Your task to perform on an android device: What's the weather? Image 0: 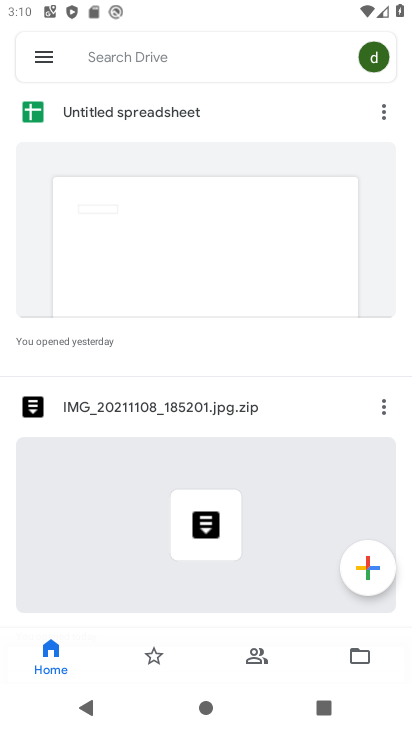
Step 0: press home button
Your task to perform on an android device: What's the weather? Image 1: 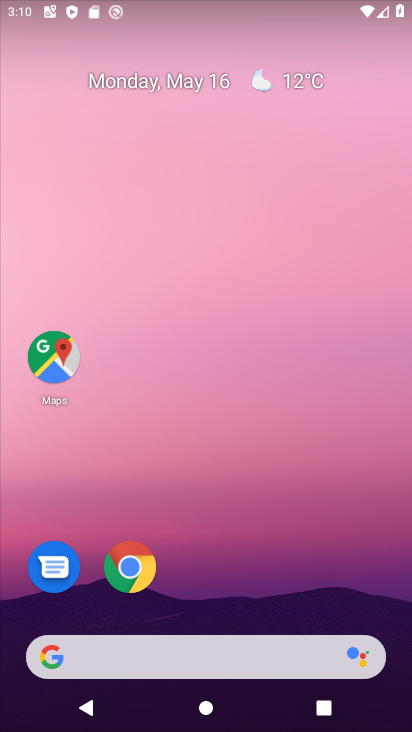
Step 1: click (302, 88)
Your task to perform on an android device: What's the weather? Image 2: 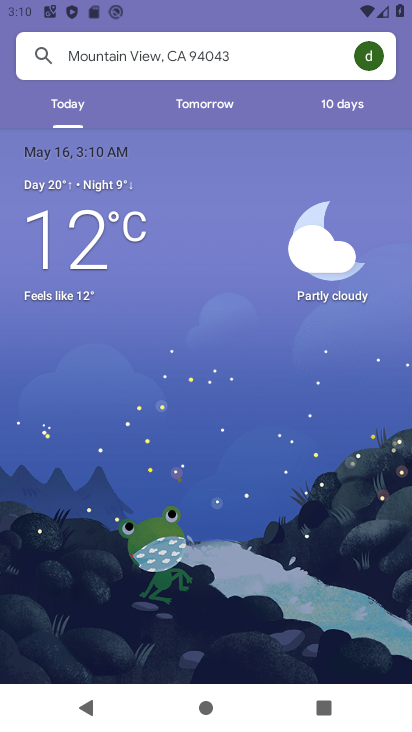
Step 2: task complete